Your task to perform on an android device: Set the phone to "Do not disturb". Image 0: 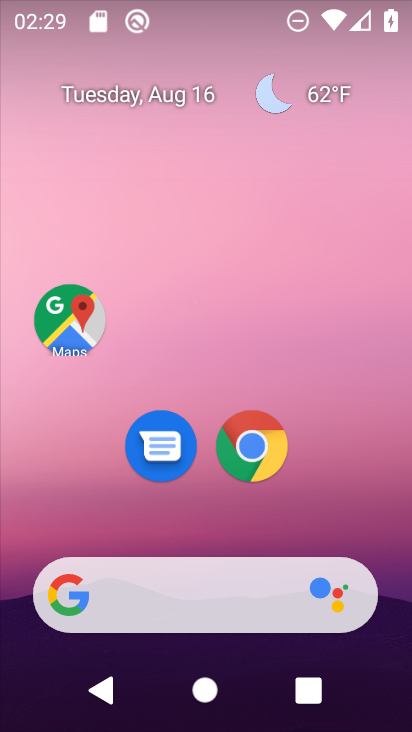
Step 0: drag from (213, 15) to (208, 601)
Your task to perform on an android device: Set the phone to "Do not disturb". Image 1: 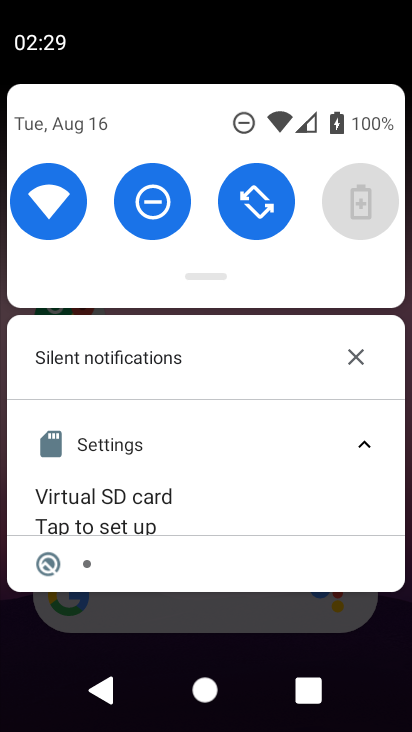
Step 1: click (152, 205)
Your task to perform on an android device: Set the phone to "Do not disturb". Image 2: 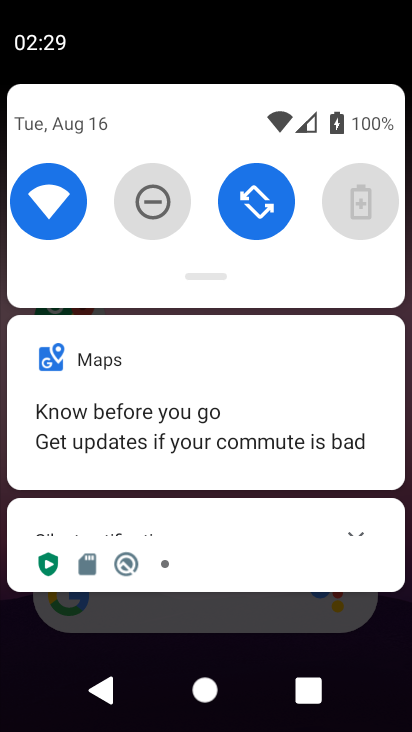
Step 2: task complete